Your task to perform on an android device: Go to Yahoo.com Image 0: 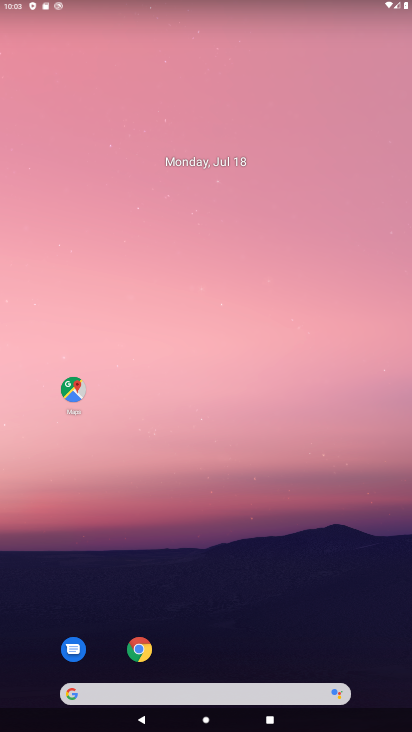
Step 0: click (129, 654)
Your task to perform on an android device: Go to Yahoo.com Image 1: 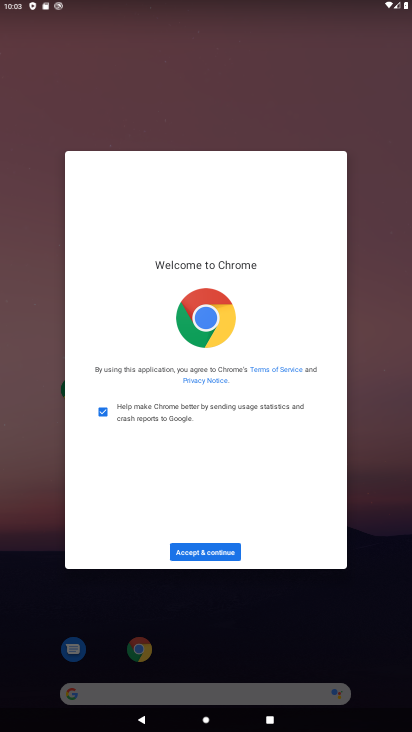
Step 1: click (211, 549)
Your task to perform on an android device: Go to Yahoo.com Image 2: 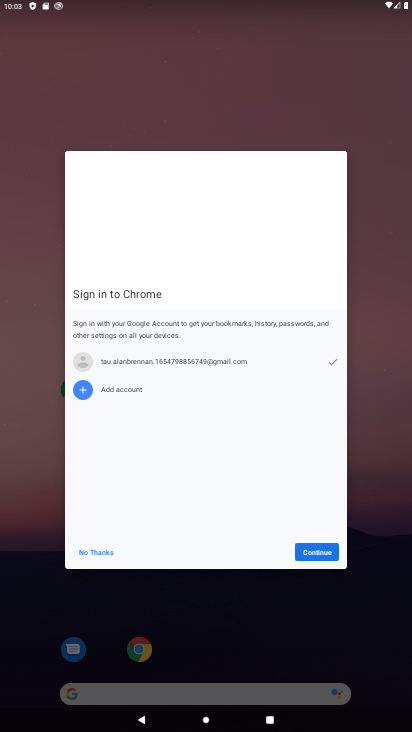
Step 2: click (299, 551)
Your task to perform on an android device: Go to Yahoo.com Image 3: 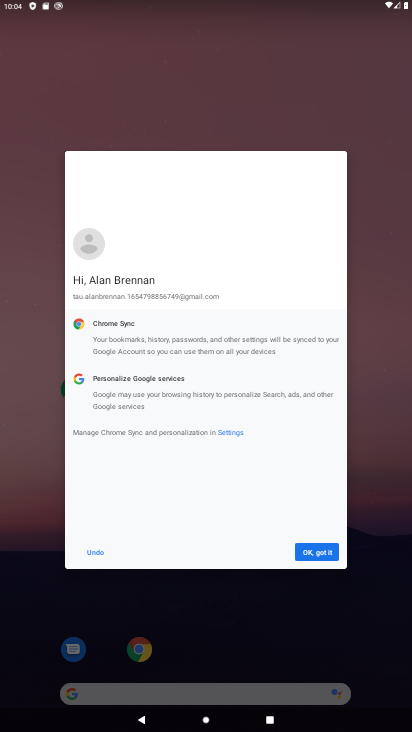
Step 3: click (332, 549)
Your task to perform on an android device: Go to Yahoo.com Image 4: 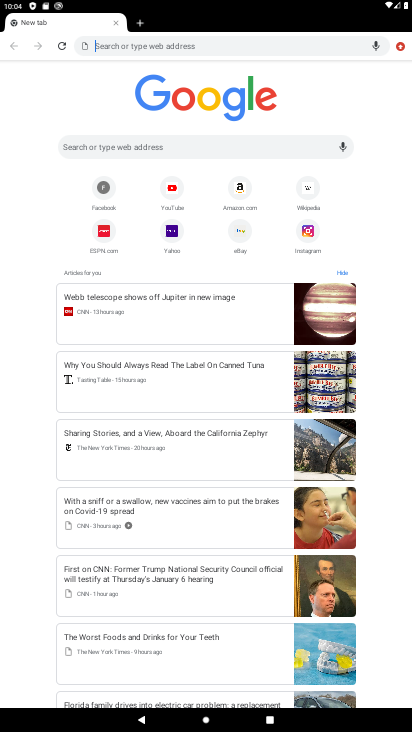
Step 4: click (178, 231)
Your task to perform on an android device: Go to Yahoo.com Image 5: 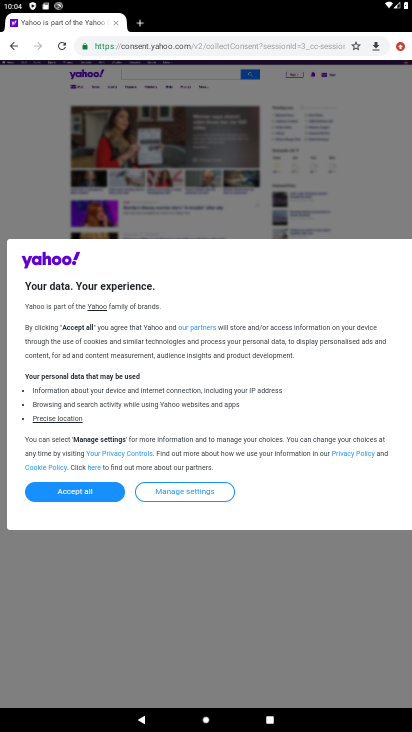
Step 5: click (86, 496)
Your task to perform on an android device: Go to Yahoo.com Image 6: 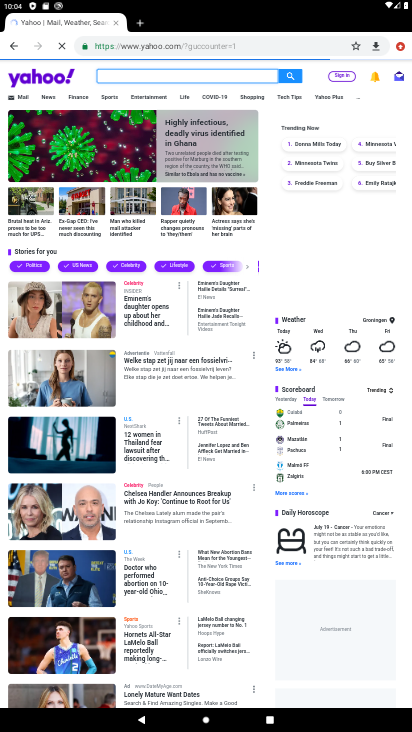
Step 6: task complete